Your task to perform on an android device: Open Android settings Image 0: 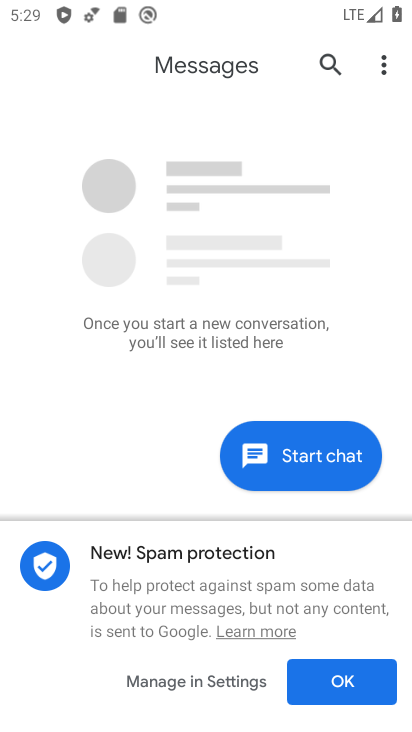
Step 0: press home button
Your task to perform on an android device: Open Android settings Image 1: 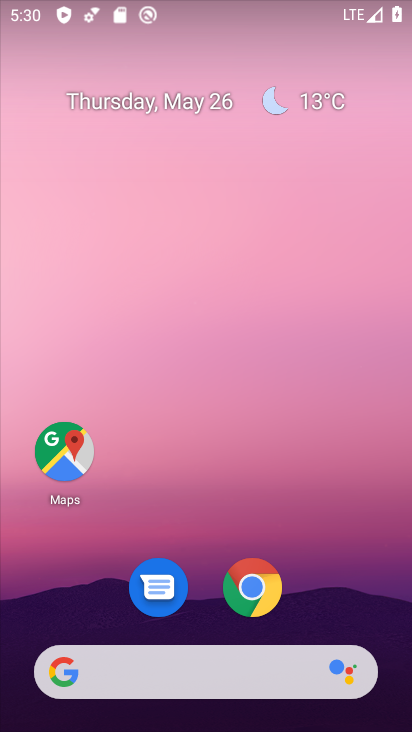
Step 1: drag from (195, 727) to (193, 76)
Your task to perform on an android device: Open Android settings Image 2: 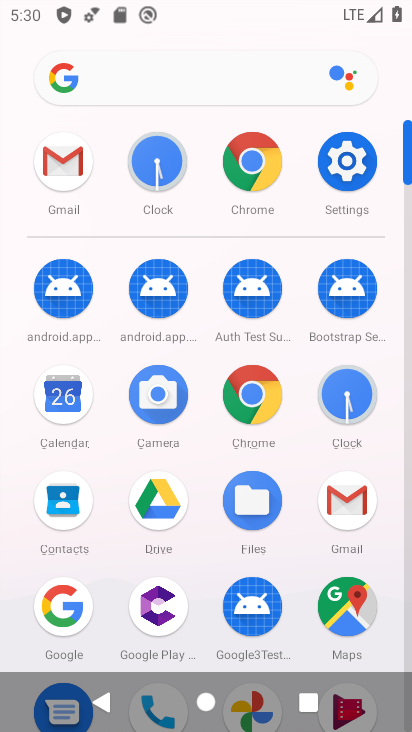
Step 2: click (334, 159)
Your task to perform on an android device: Open Android settings Image 3: 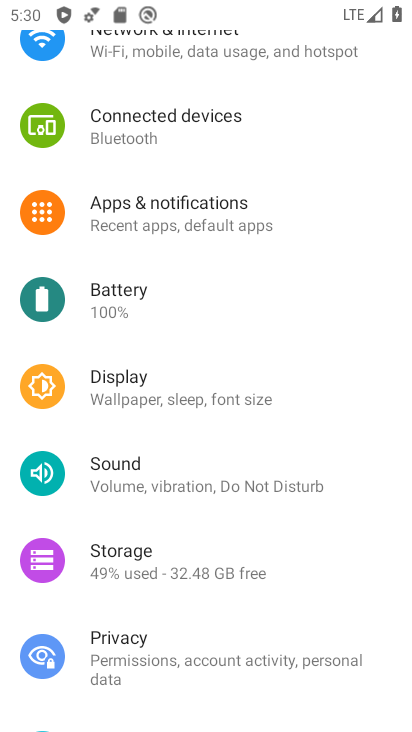
Step 3: task complete